Your task to perform on an android device: show emergency info Image 0: 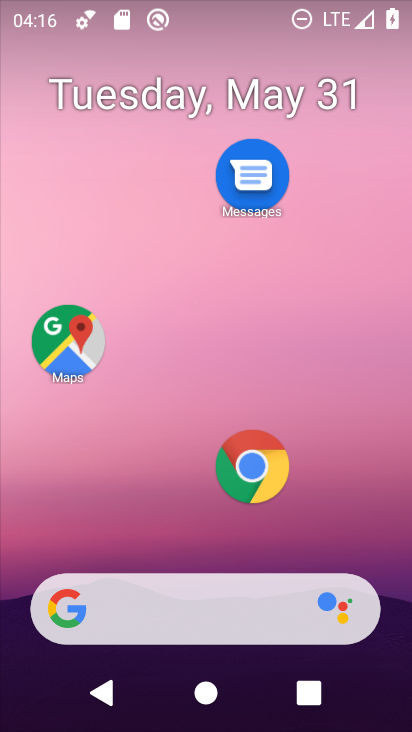
Step 0: drag from (125, 510) to (228, 86)
Your task to perform on an android device: show emergency info Image 1: 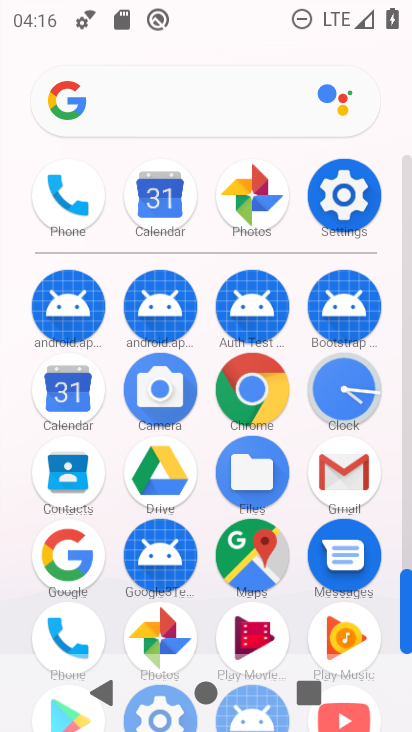
Step 1: click (348, 199)
Your task to perform on an android device: show emergency info Image 2: 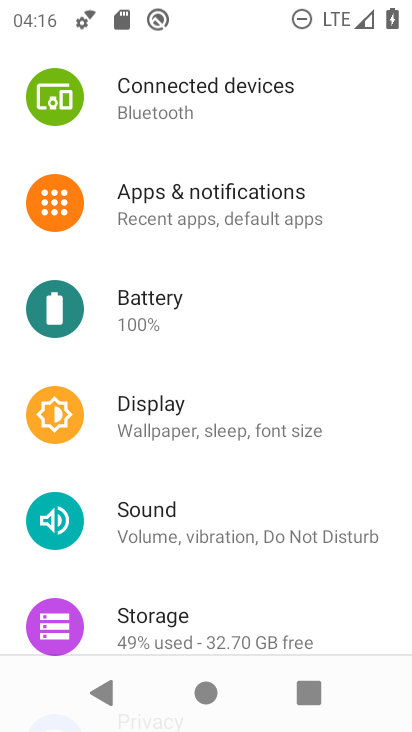
Step 2: drag from (219, 182) to (195, 616)
Your task to perform on an android device: show emergency info Image 3: 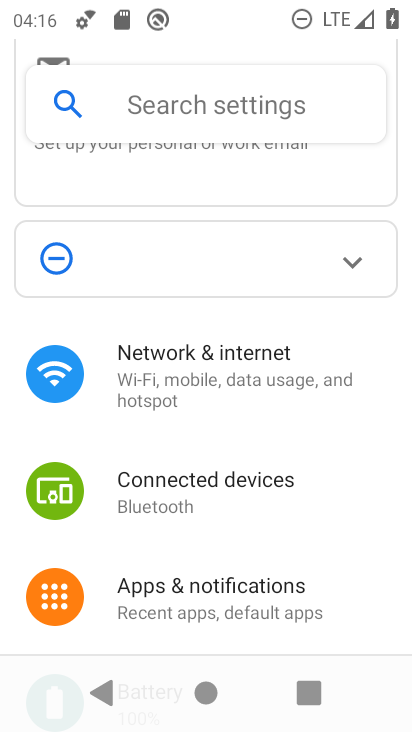
Step 3: drag from (197, 622) to (326, 117)
Your task to perform on an android device: show emergency info Image 4: 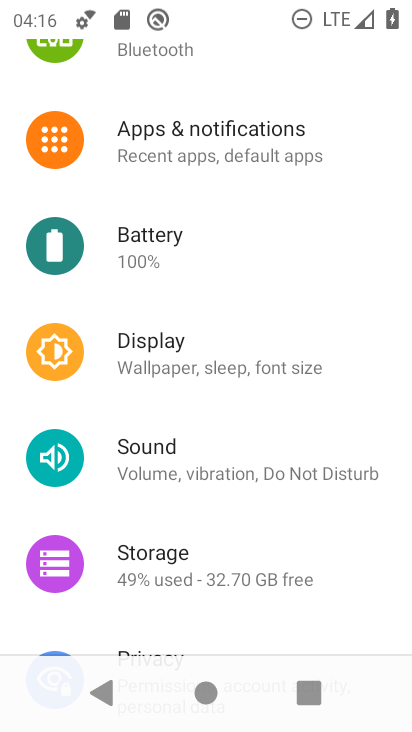
Step 4: drag from (249, 581) to (314, 116)
Your task to perform on an android device: show emergency info Image 5: 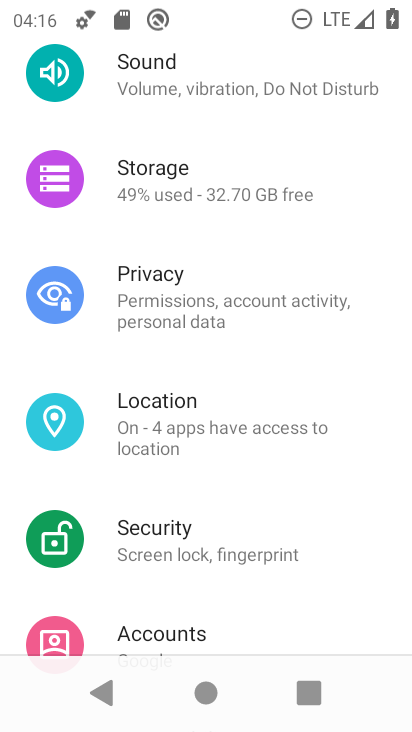
Step 5: drag from (159, 621) to (237, 108)
Your task to perform on an android device: show emergency info Image 6: 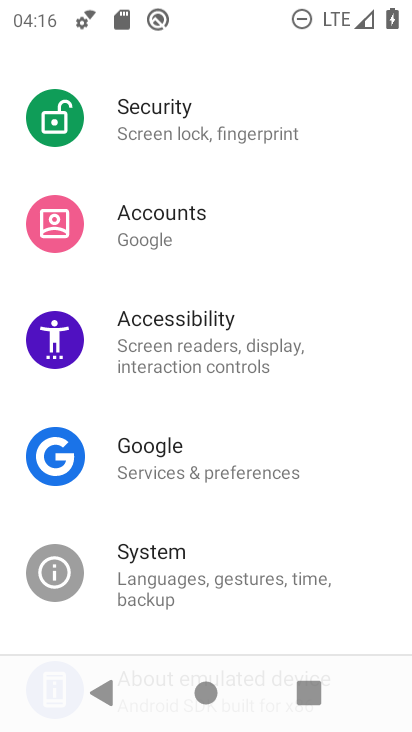
Step 6: drag from (155, 615) to (268, 3)
Your task to perform on an android device: show emergency info Image 7: 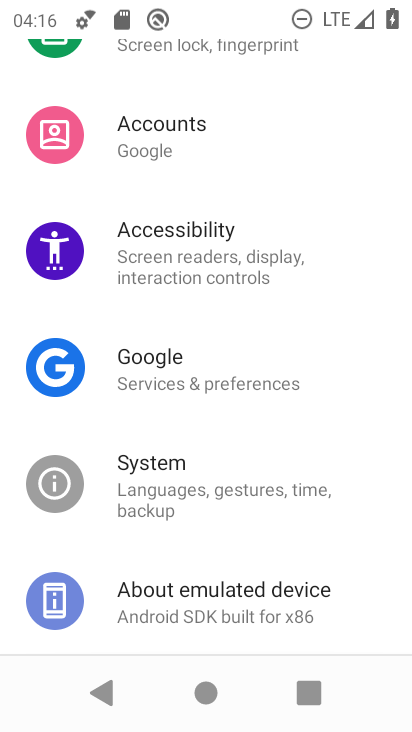
Step 7: click (190, 615)
Your task to perform on an android device: show emergency info Image 8: 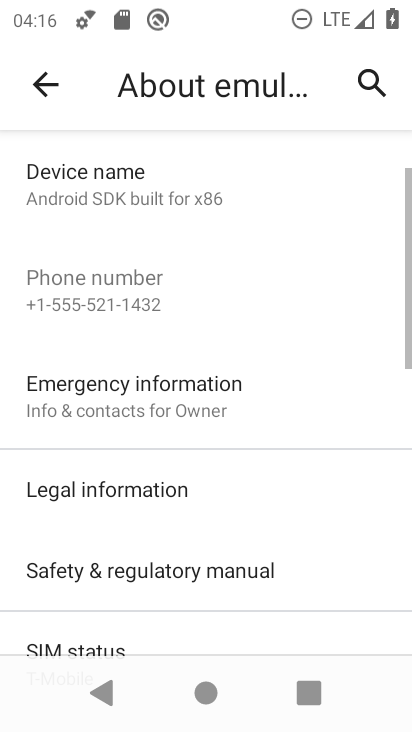
Step 8: click (164, 394)
Your task to perform on an android device: show emergency info Image 9: 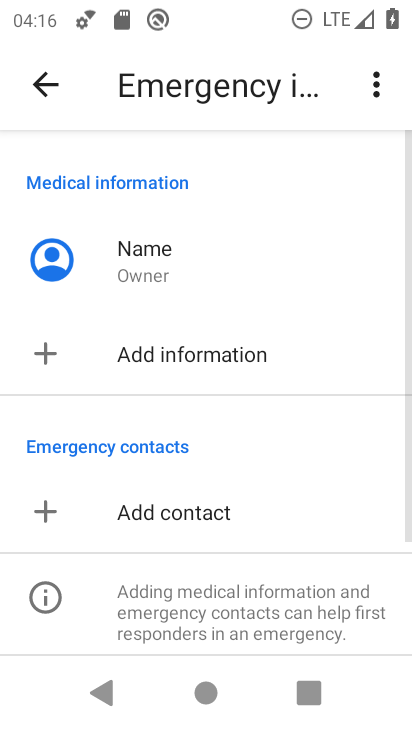
Step 9: task complete